Your task to perform on an android device: Open Yahoo.com Image 0: 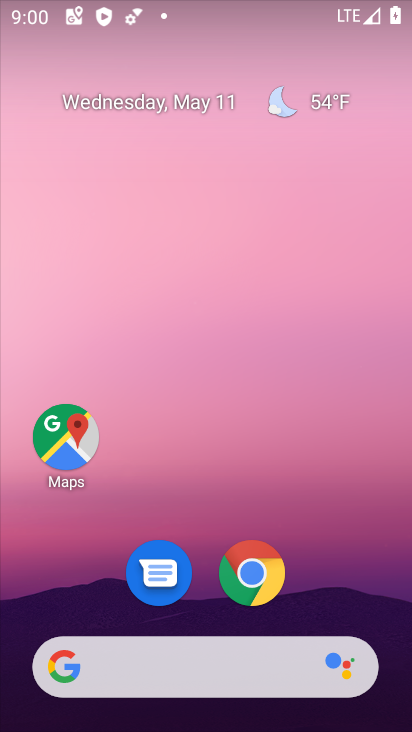
Step 0: drag from (195, 650) to (265, 35)
Your task to perform on an android device: Open Yahoo.com Image 1: 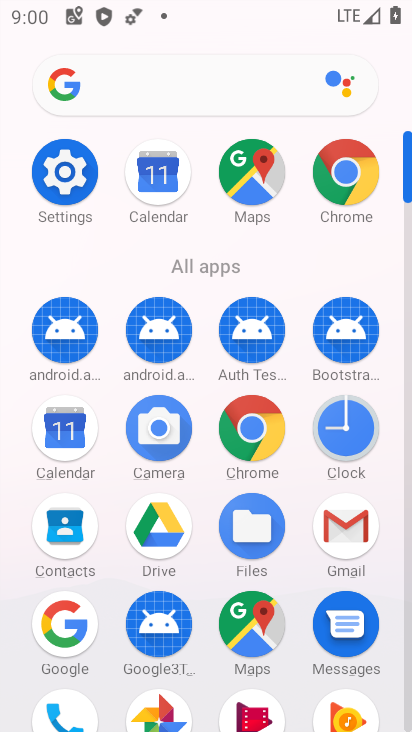
Step 1: click (240, 417)
Your task to perform on an android device: Open Yahoo.com Image 2: 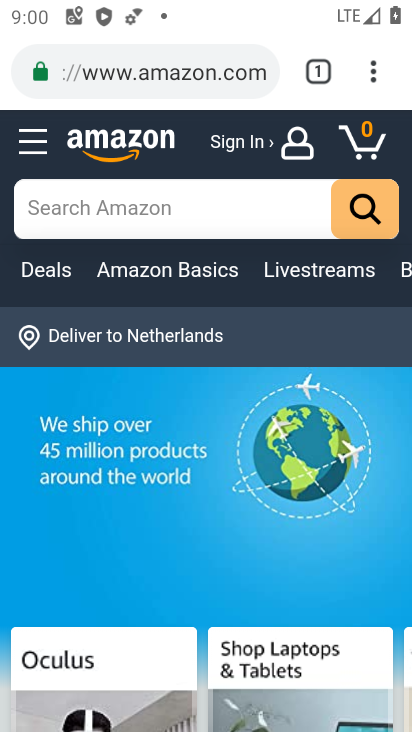
Step 2: click (374, 76)
Your task to perform on an android device: Open Yahoo.com Image 3: 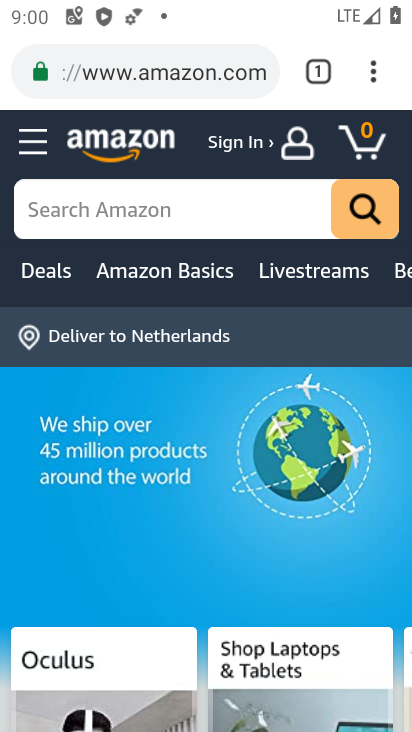
Step 3: drag from (370, 75) to (171, 145)
Your task to perform on an android device: Open Yahoo.com Image 4: 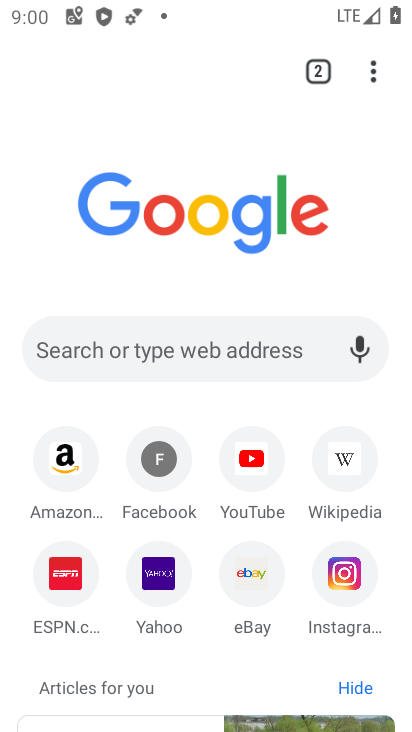
Step 4: click (153, 569)
Your task to perform on an android device: Open Yahoo.com Image 5: 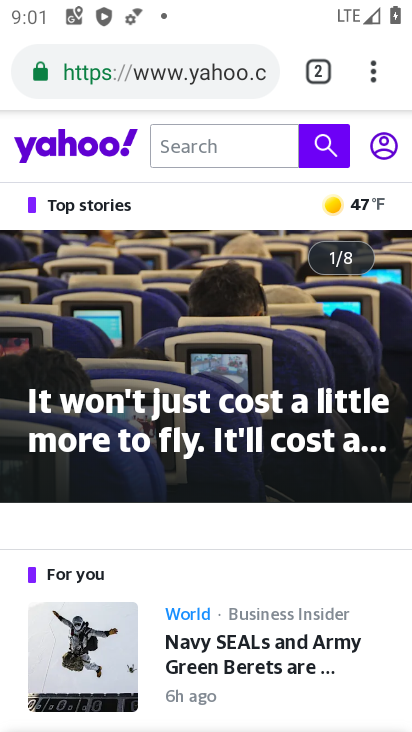
Step 5: task complete